Your task to perform on an android device: Play the last video I watched on Youtube Image 0: 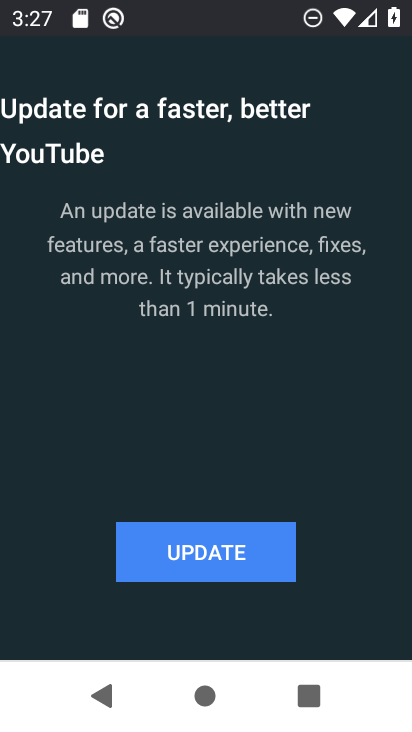
Step 0: click (217, 541)
Your task to perform on an android device: Play the last video I watched on Youtube Image 1: 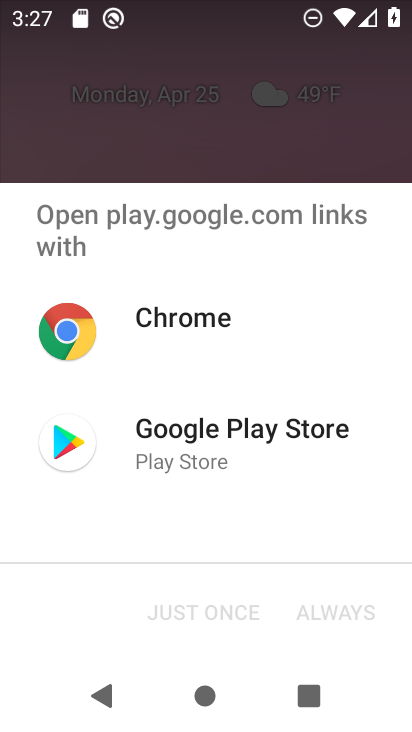
Step 1: click (142, 456)
Your task to perform on an android device: Play the last video I watched on Youtube Image 2: 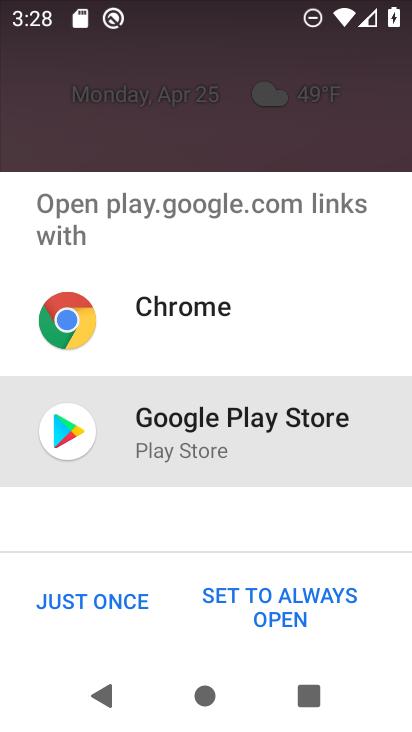
Step 2: click (57, 608)
Your task to perform on an android device: Play the last video I watched on Youtube Image 3: 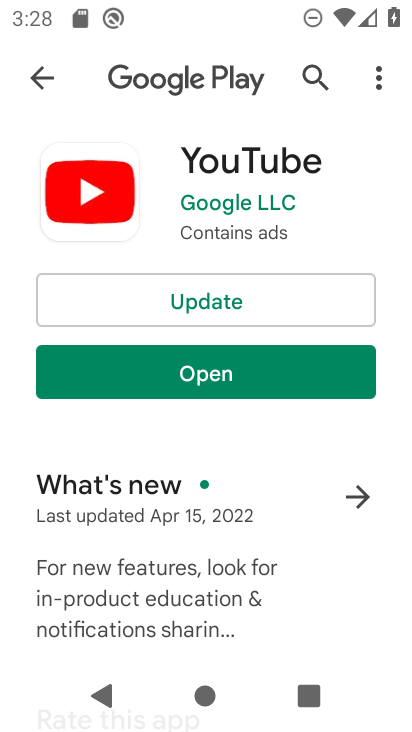
Step 3: click (191, 304)
Your task to perform on an android device: Play the last video I watched on Youtube Image 4: 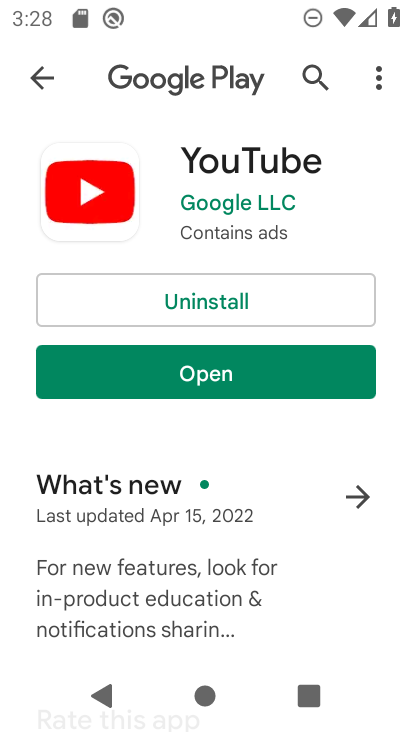
Step 4: click (212, 378)
Your task to perform on an android device: Play the last video I watched on Youtube Image 5: 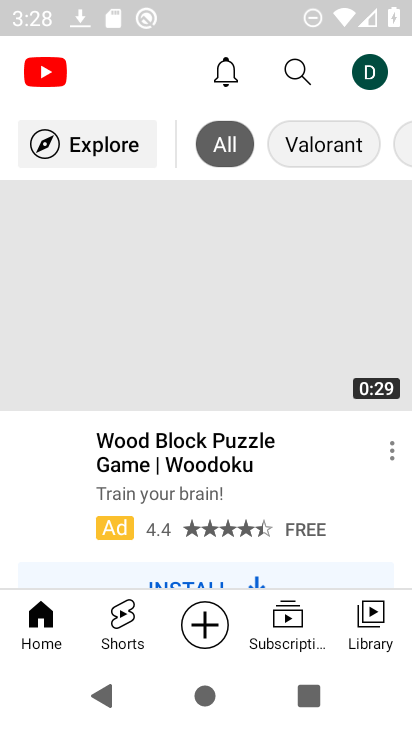
Step 5: click (370, 629)
Your task to perform on an android device: Play the last video I watched on Youtube Image 6: 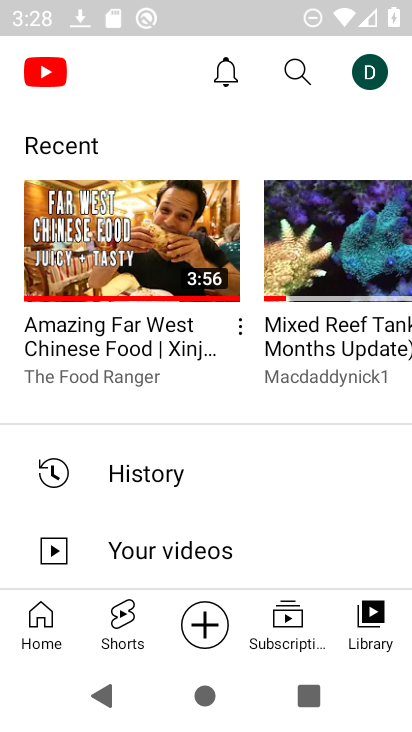
Step 6: click (107, 477)
Your task to perform on an android device: Play the last video I watched on Youtube Image 7: 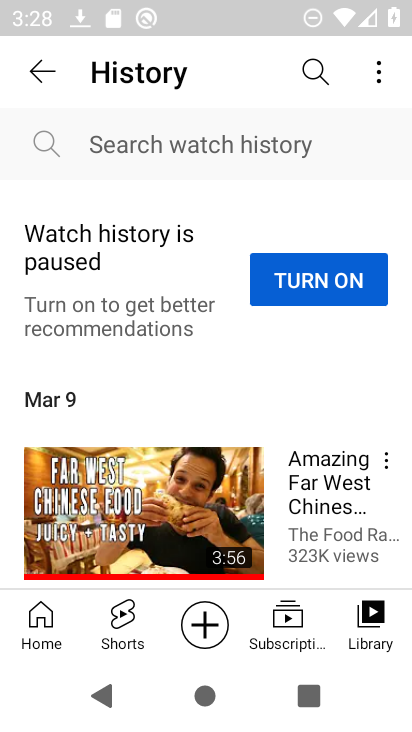
Step 7: click (137, 527)
Your task to perform on an android device: Play the last video I watched on Youtube Image 8: 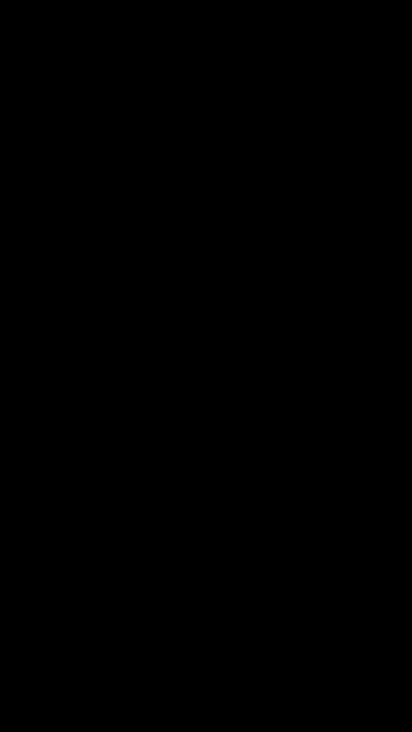
Step 8: task complete